Your task to perform on an android device: set the timer Image 0: 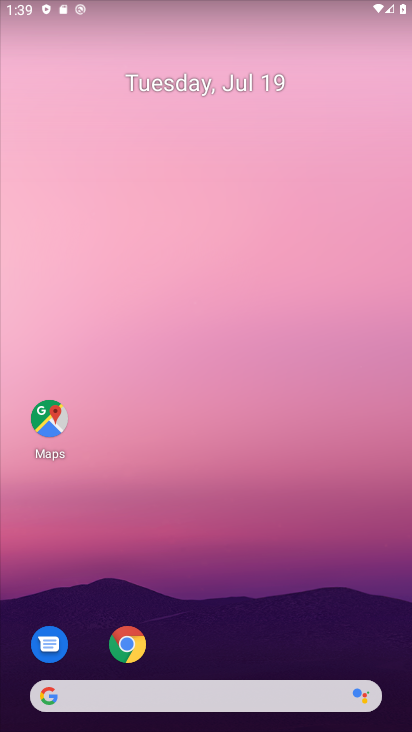
Step 0: drag from (211, 678) to (208, 239)
Your task to perform on an android device: set the timer Image 1: 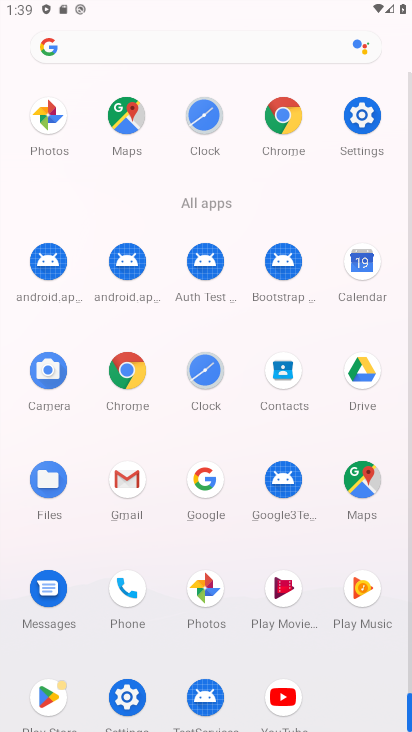
Step 1: click (212, 364)
Your task to perform on an android device: set the timer Image 2: 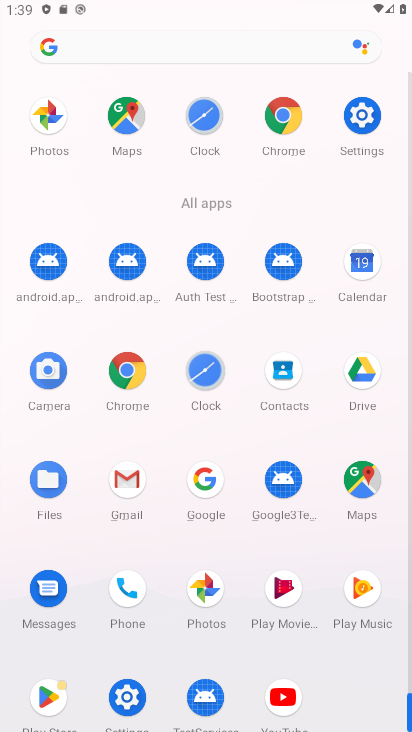
Step 2: click (207, 365)
Your task to perform on an android device: set the timer Image 3: 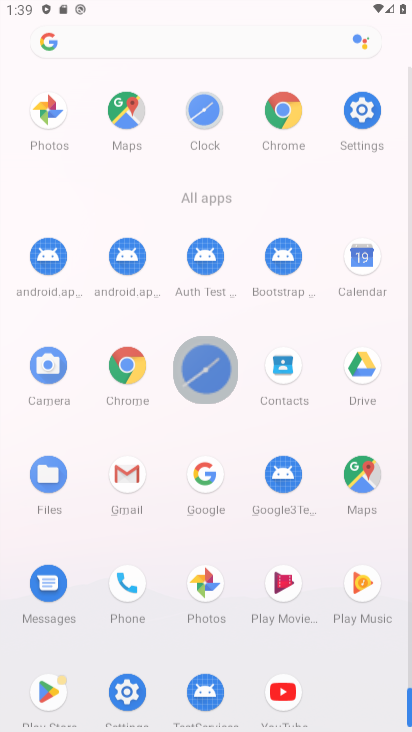
Step 3: click (209, 363)
Your task to perform on an android device: set the timer Image 4: 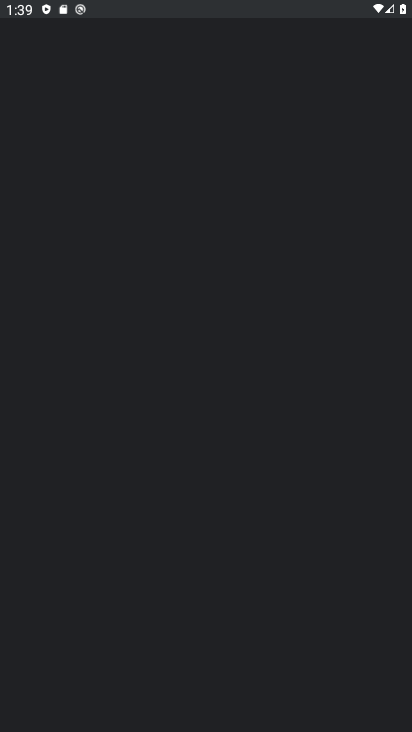
Step 4: click (210, 363)
Your task to perform on an android device: set the timer Image 5: 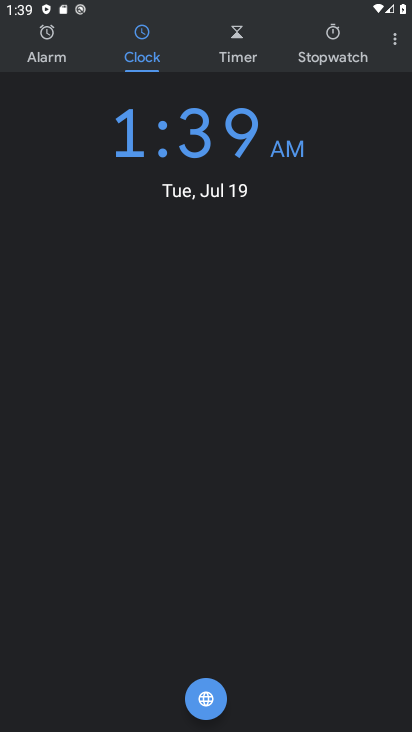
Step 5: click (228, 45)
Your task to perform on an android device: set the timer Image 6: 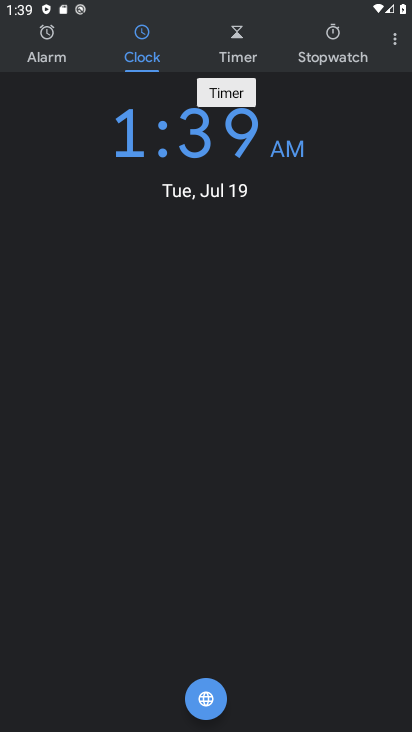
Step 6: click (229, 44)
Your task to perform on an android device: set the timer Image 7: 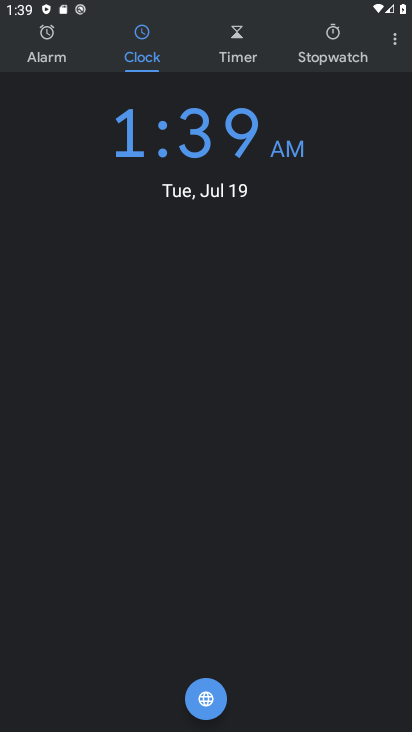
Step 7: click (239, 48)
Your task to perform on an android device: set the timer Image 8: 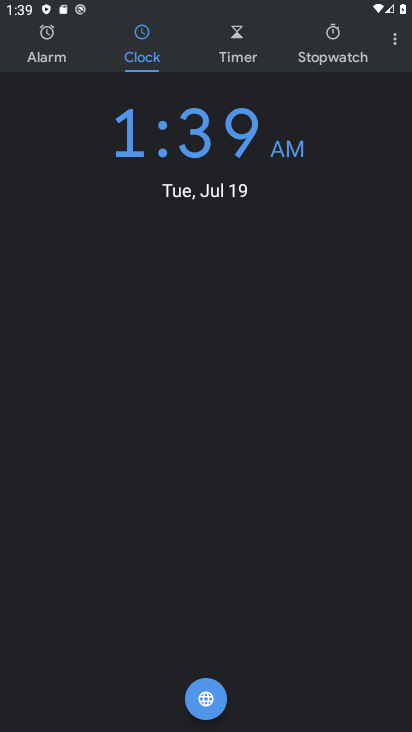
Step 8: click (239, 48)
Your task to perform on an android device: set the timer Image 9: 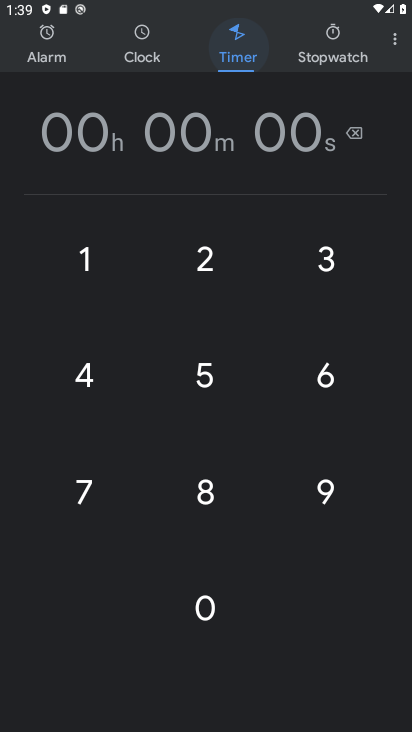
Step 9: click (239, 48)
Your task to perform on an android device: set the timer Image 10: 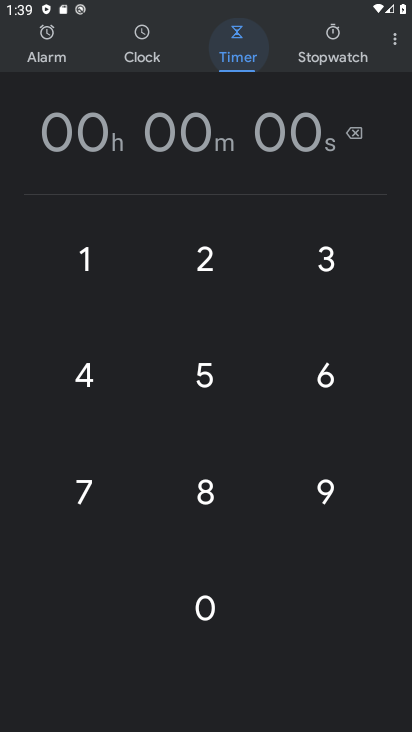
Step 10: click (239, 48)
Your task to perform on an android device: set the timer Image 11: 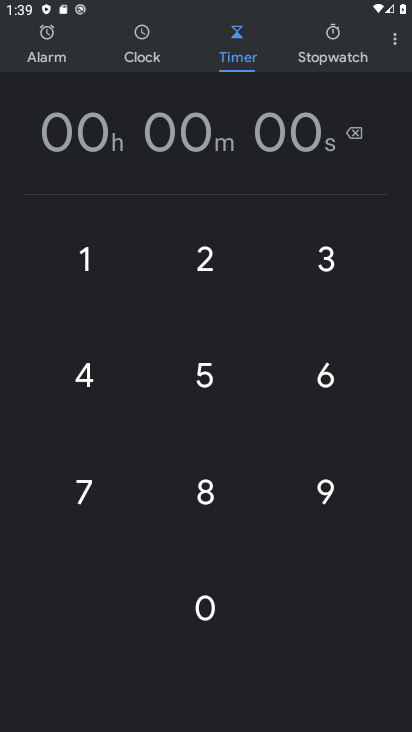
Step 11: click (240, 49)
Your task to perform on an android device: set the timer Image 12: 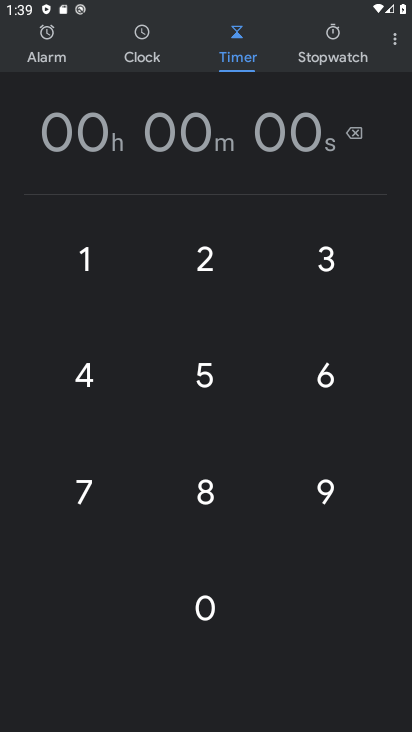
Step 12: click (204, 379)
Your task to perform on an android device: set the timer Image 13: 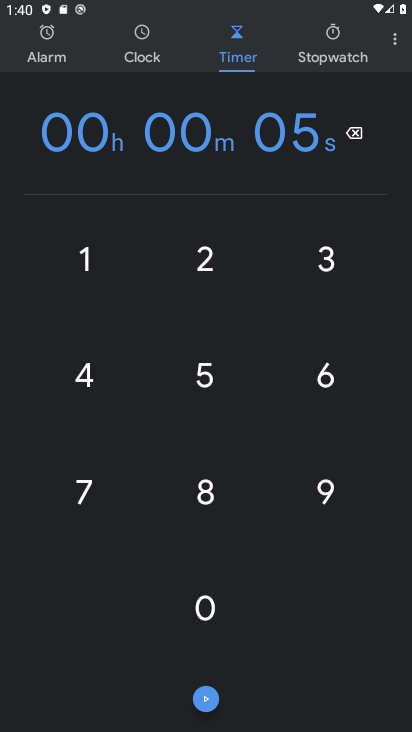
Step 13: click (206, 377)
Your task to perform on an android device: set the timer Image 14: 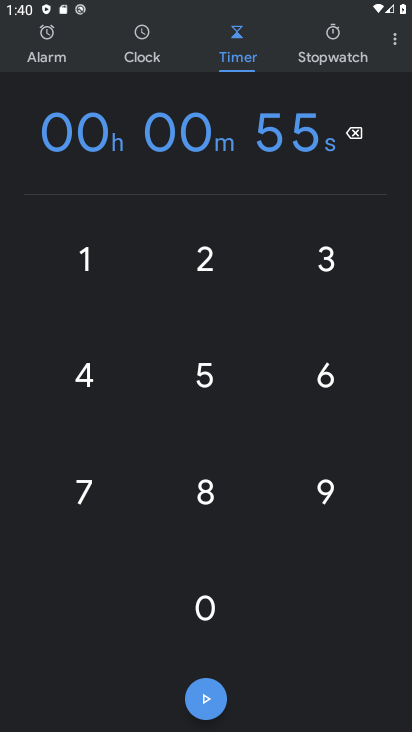
Step 14: click (213, 696)
Your task to perform on an android device: set the timer Image 15: 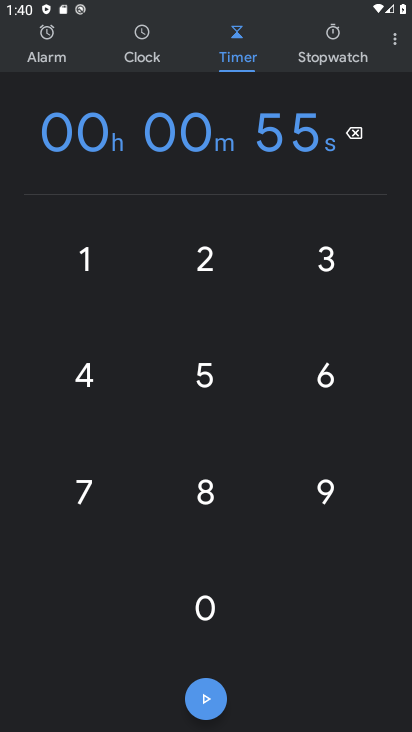
Step 15: click (213, 697)
Your task to perform on an android device: set the timer Image 16: 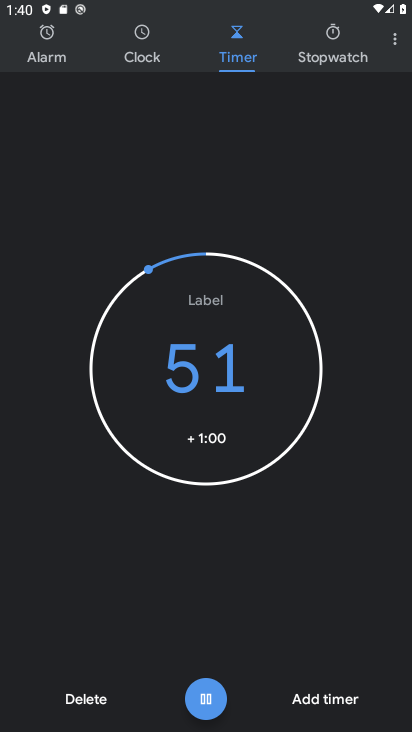
Step 16: click (205, 697)
Your task to perform on an android device: set the timer Image 17: 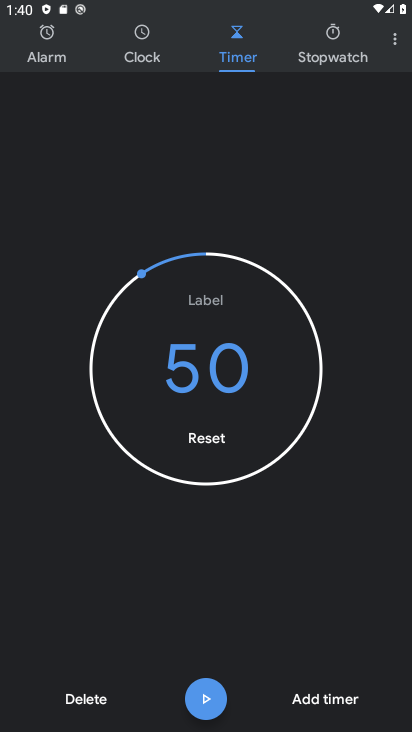
Step 17: task complete